Your task to perform on an android device: open app "Pinterest" Image 0: 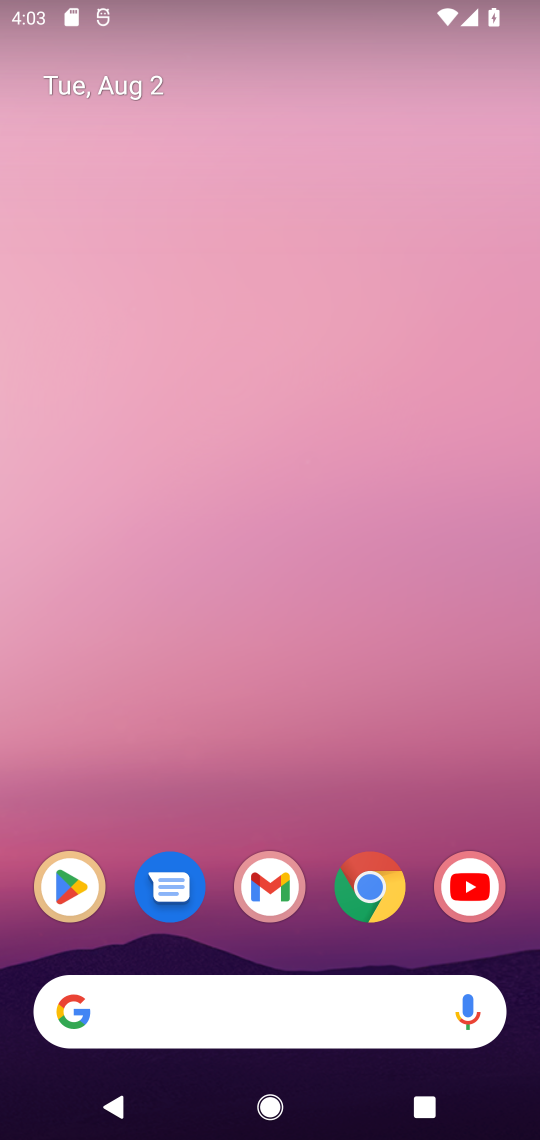
Step 0: click (79, 878)
Your task to perform on an android device: open app "Pinterest" Image 1: 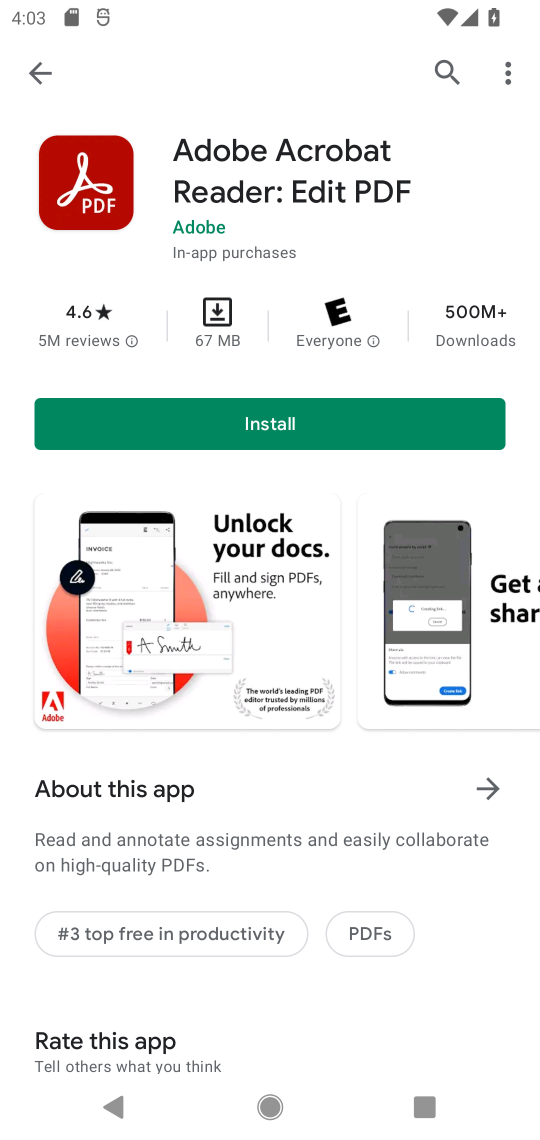
Step 1: click (39, 72)
Your task to perform on an android device: open app "Pinterest" Image 2: 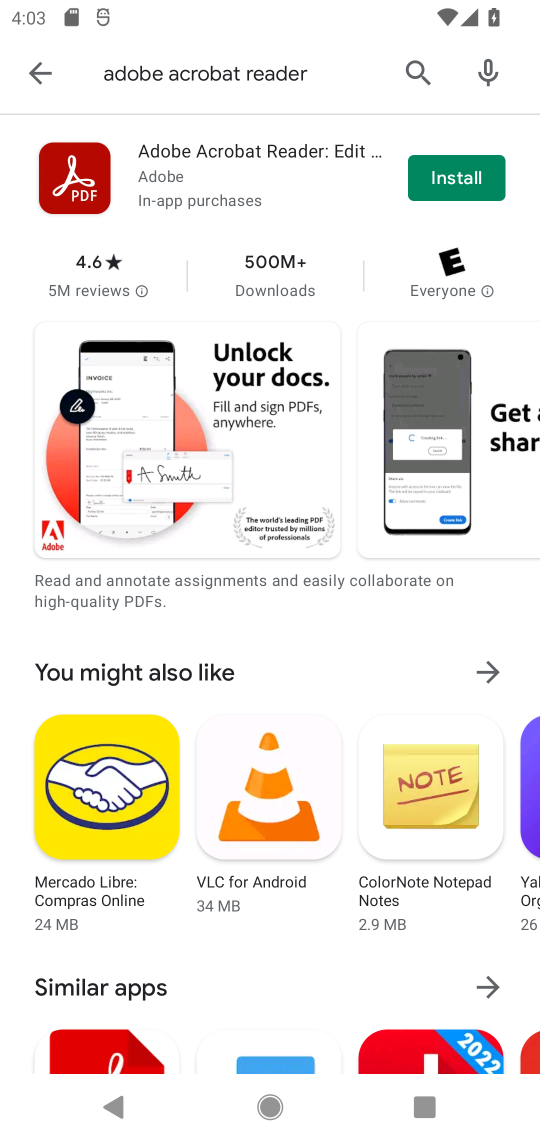
Step 2: click (29, 51)
Your task to perform on an android device: open app "Pinterest" Image 3: 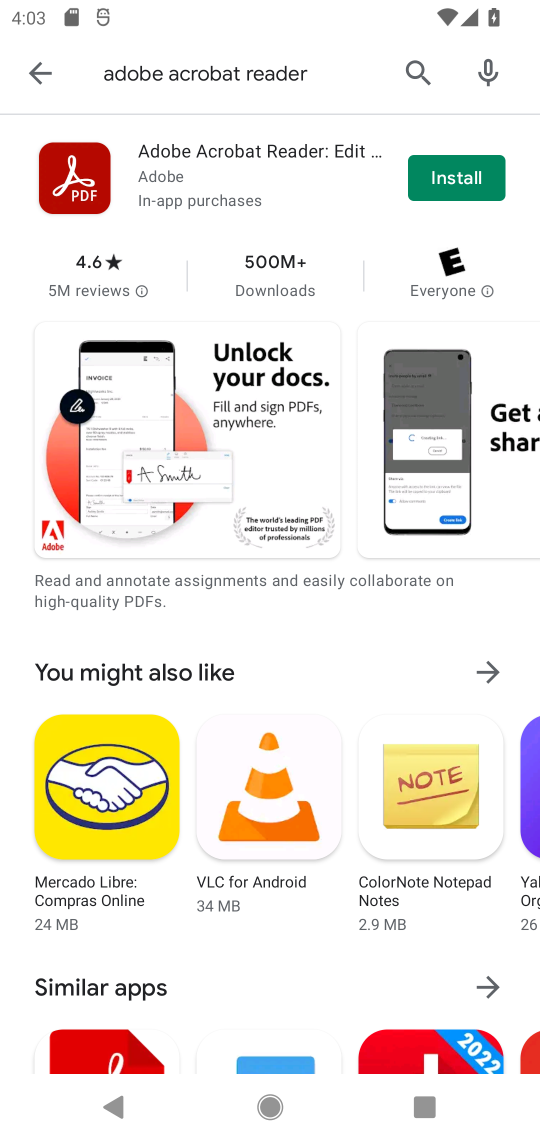
Step 3: click (29, 75)
Your task to perform on an android device: open app "Pinterest" Image 4: 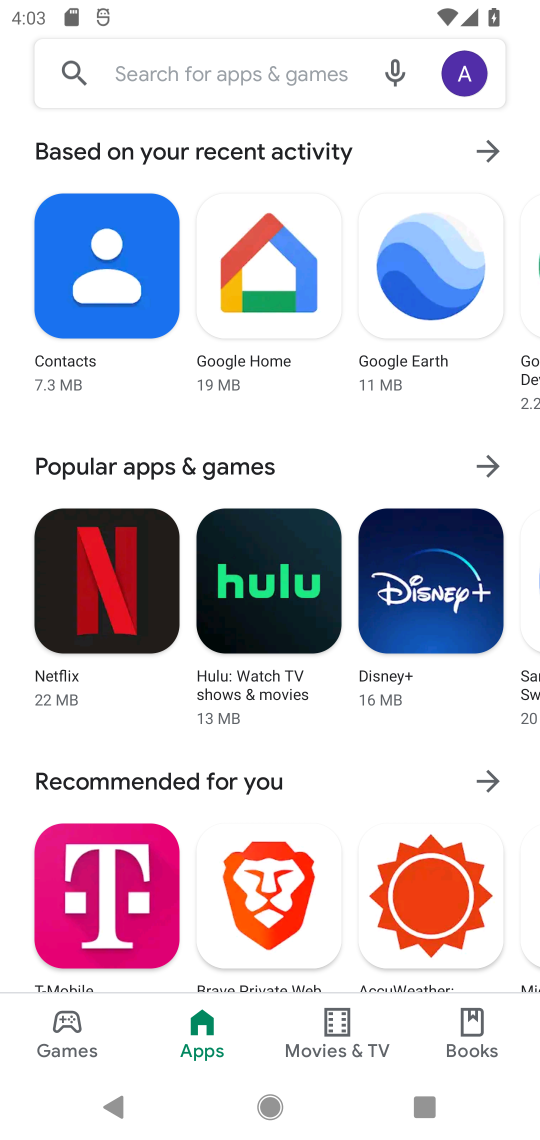
Step 4: click (120, 67)
Your task to perform on an android device: open app "Pinterest" Image 5: 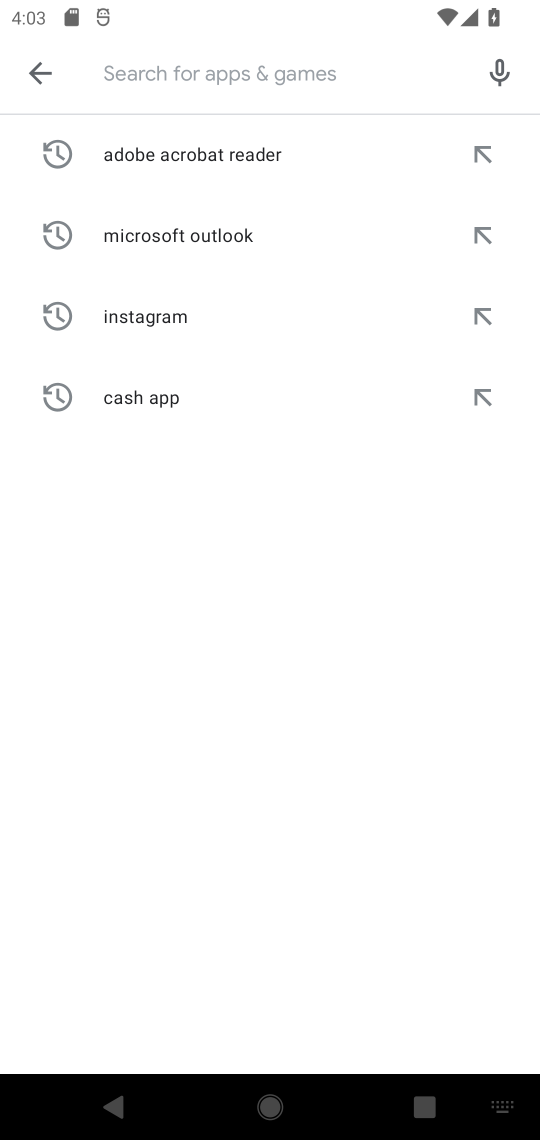
Step 5: type "Pinterest"
Your task to perform on an android device: open app "Pinterest" Image 6: 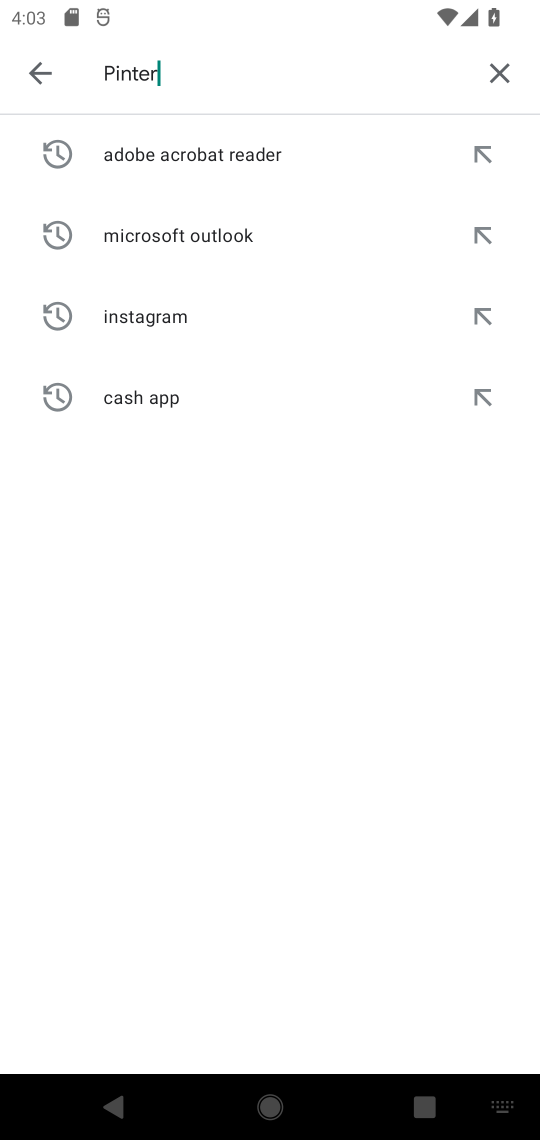
Step 6: type ""
Your task to perform on an android device: open app "Pinterest" Image 7: 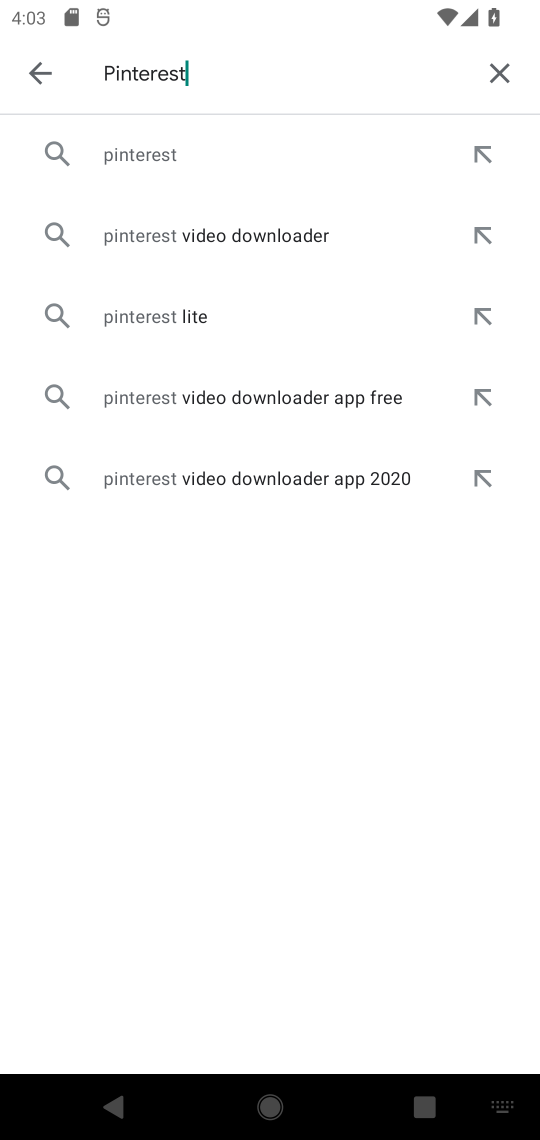
Step 7: click (126, 145)
Your task to perform on an android device: open app "Pinterest" Image 8: 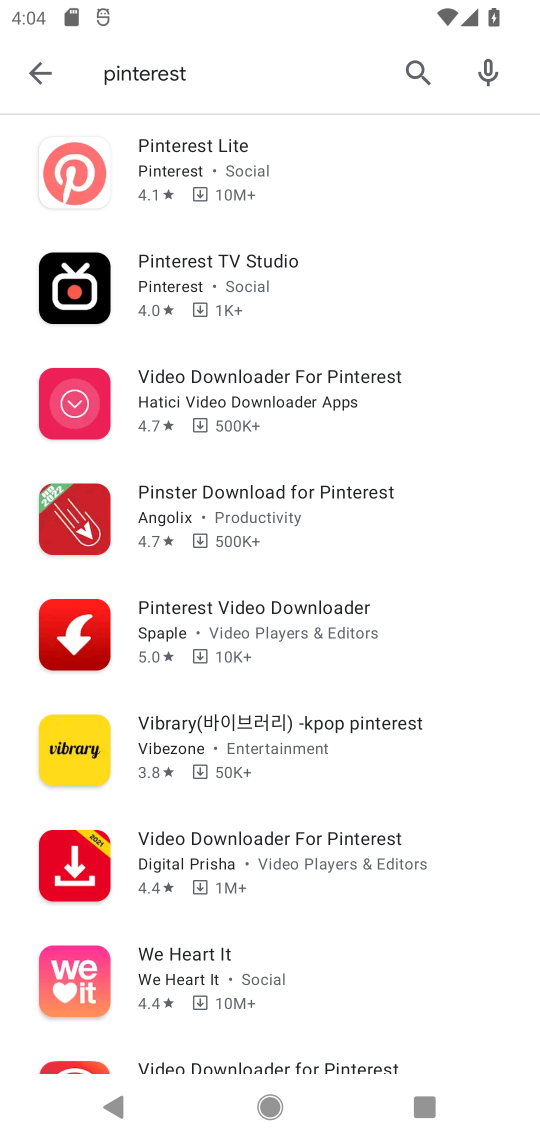
Step 8: task complete